Your task to perform on an android device: delete location history Image 0: 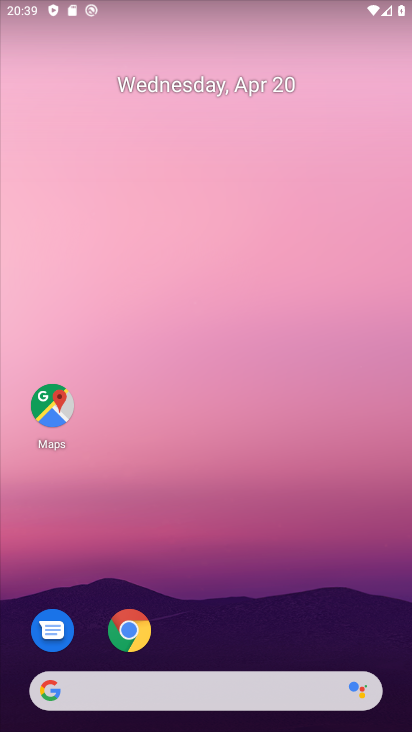
Step 0: drag from (198, 611) to (156, 135)
Your task to perform on an android device: delete location history Image 1: 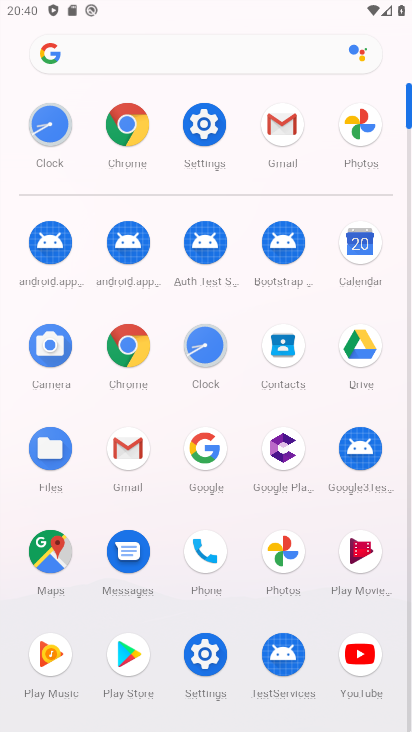
Step 1: click (44, 548)
Your task to perform on an android device: delete location history Image 2: 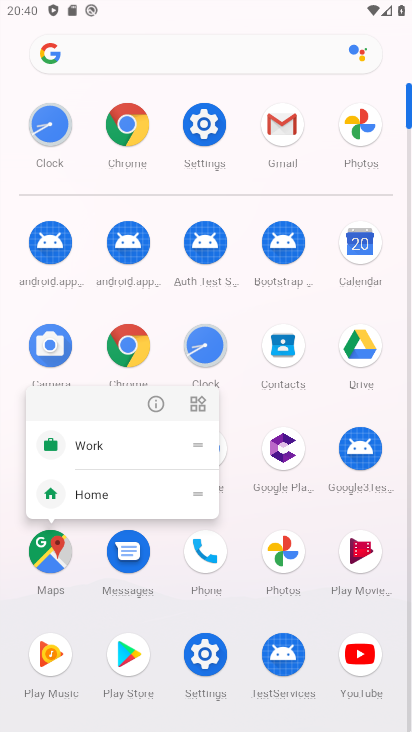
Step 2: click (44, 548)
Your task to perform on an android device: delete location history Image 3: 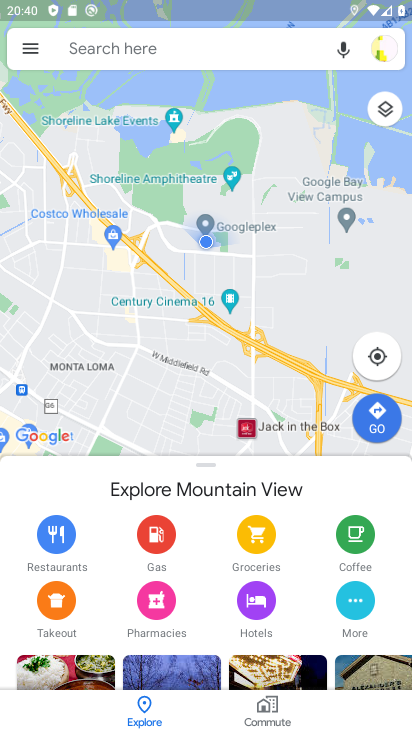
Step 3: click (31, 45)
Your task to perform on an android device: delete location history Image 4: 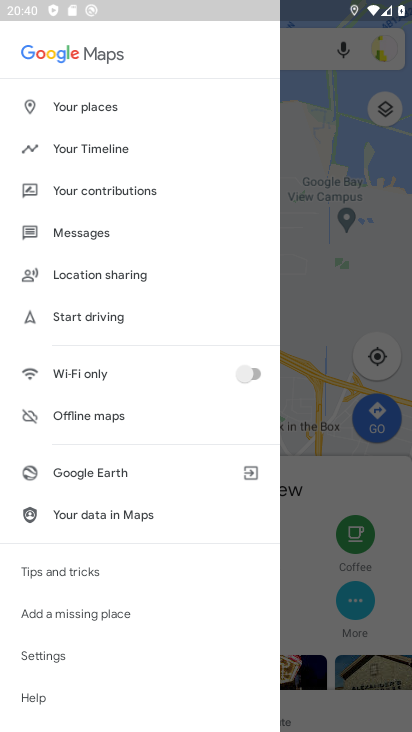
Step 4: click (70, 147)
Your task to perform on an android device: delete location history Image 5: 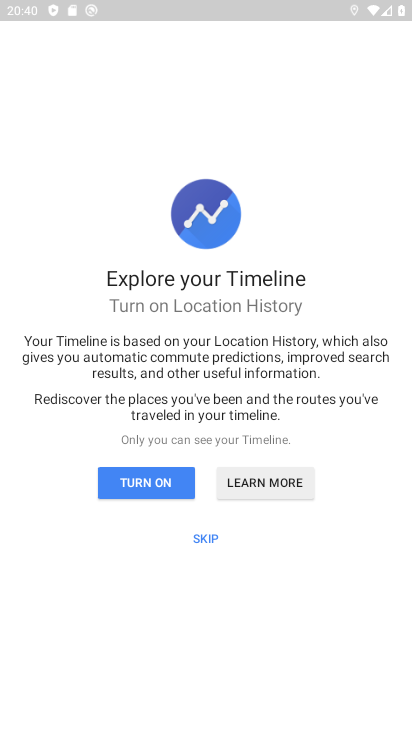
Step 5: click (193, 538)
Your task to perform on an android device: delete location history Image 6: 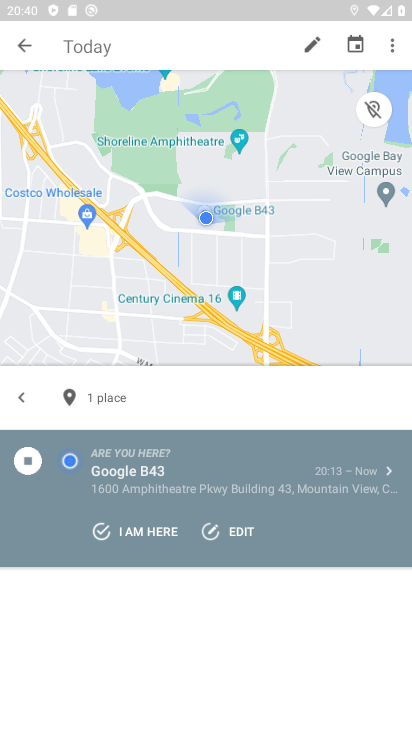
Step 6: click (387, 44)
Your task to perform on an android device: delete location history Image 7: 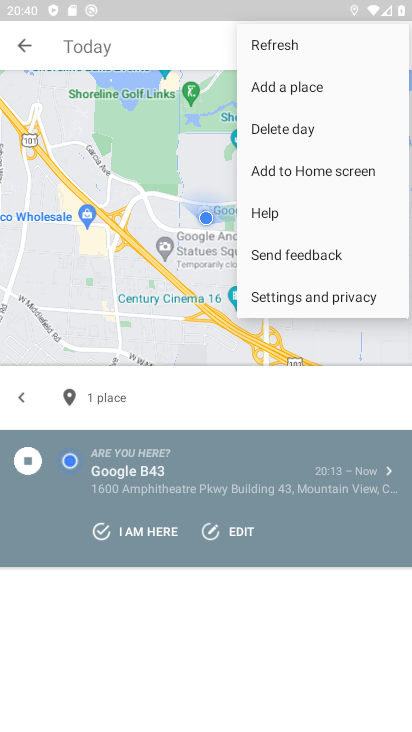
Step 7: click (299, 296)
Your task to perform on an android device: delete location history Image 8: 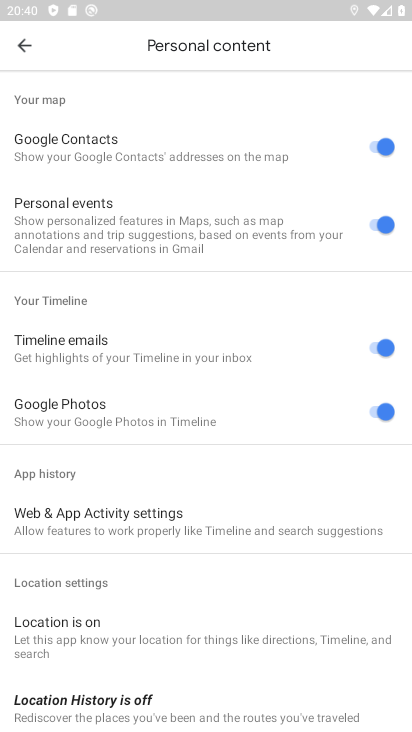
Step 8: drag from (186, 573) to (164, 212)
Your task to perform on an android device: delete location history Image 9: 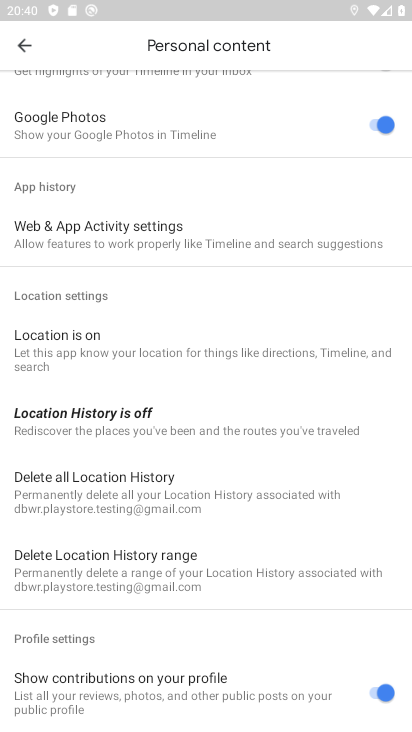
Step 9: click (135, 504)
Your task to perform on an android device: delete location history Image 10: 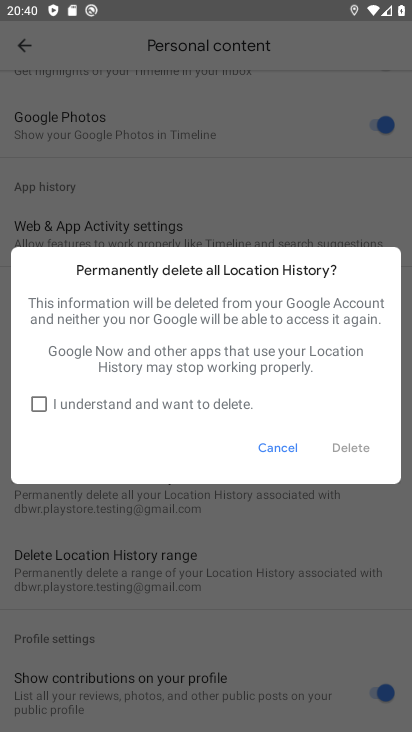
Step 10: click (49, 405)
Your task to perform on an android device: delete location history Image 11: 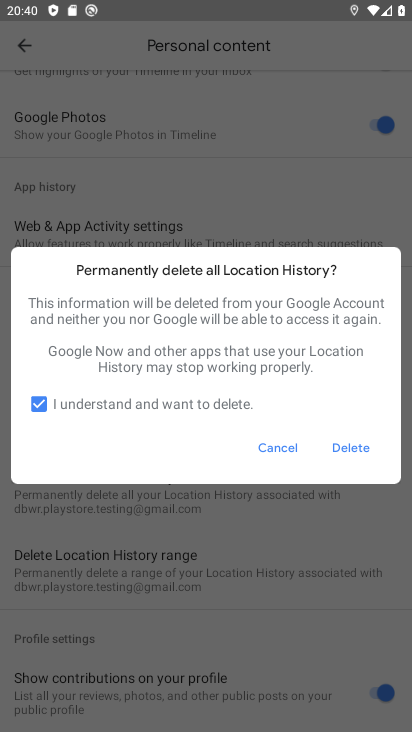
Step 11: click (345, 449)
Your task to perform on an android device: delete location history Image 12: 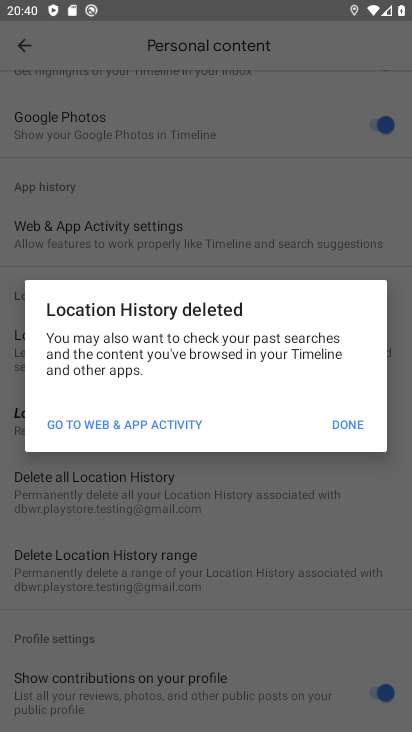
Step 12: click (340, 426)
Your task to perform on an android device: delete location history Image 13: 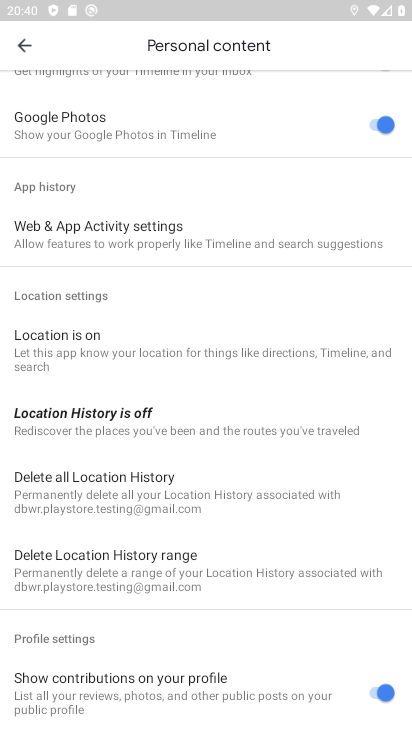
Step 13: task complete